Your task to perform on an android device: turn notification dots off Image 0: 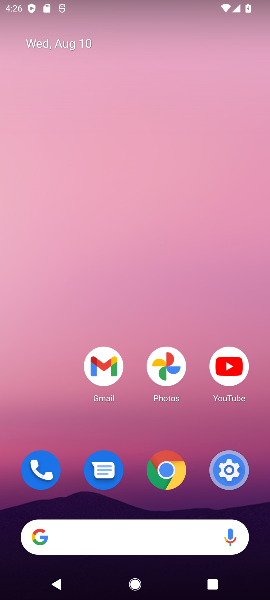
Step 0: drag from (130, 477) to (75, 0)
Your task to perform on an android device: turn notification dots off Image 1: 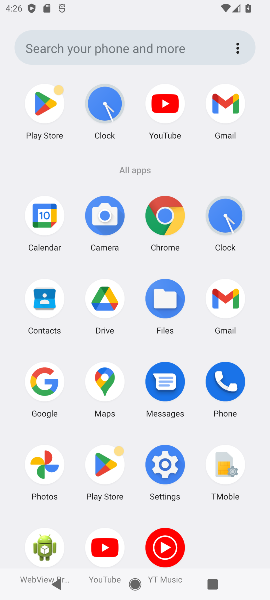
Step 1: click (161, 462)
Your task to perform on an android device: turn notification dots off Image 2: 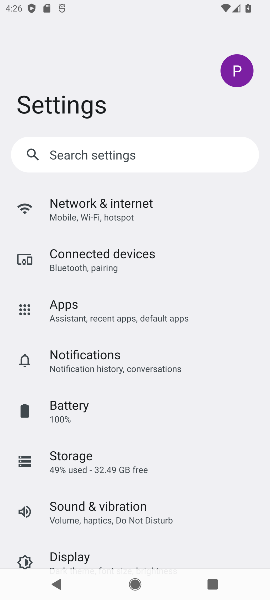
Step 2: drag from (185, 522) to (140, 253)
Your task to perform on an android device: turn notification dots off Image 3: 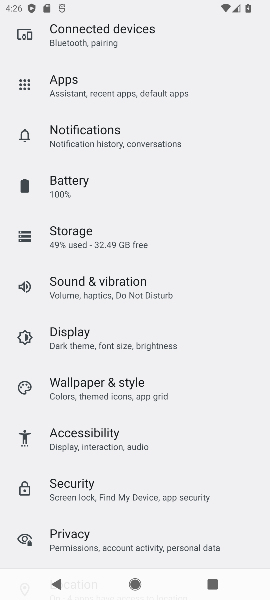
Step 3: click (75, 139)
Your task to perform on an android device: turn notification dots off Image 4: 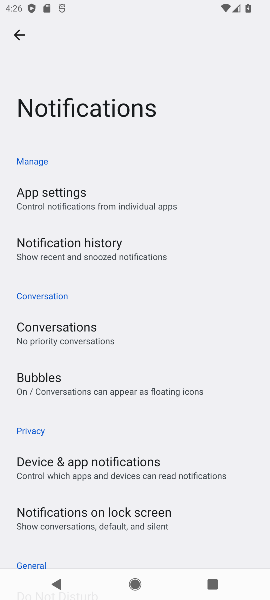
Step 4: drag from (152, 481) to (122, 136)
Your task to perform on an android device: turn notification dots off Image 5: 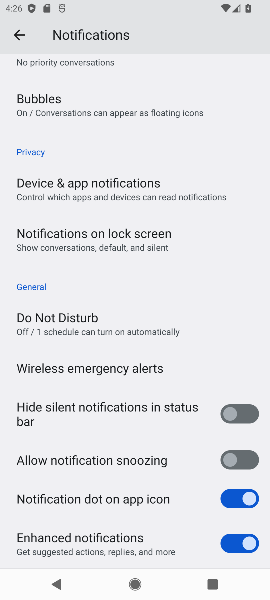
Step 5: drag from (100, 524) to (114, 255)
Your task to perform on an android device: turn notification dots off Image 6: 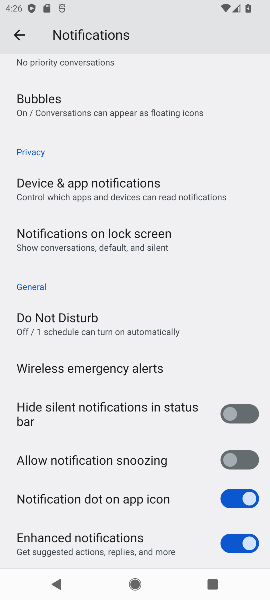
Step 6: click (230, 494)
Your task to perform on an android device: turn notification dots off Image 7: 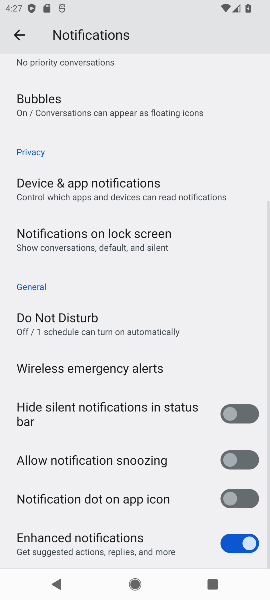
Step 7: task complete